Your task to perform on an android device: change keyboard looks Image 0: 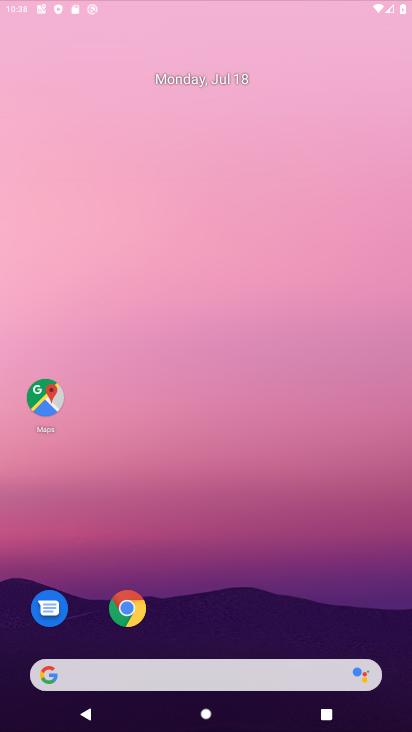
Step 0: click (411, 180)
Your task to perform on an android device: change keyboard looks Image 1: 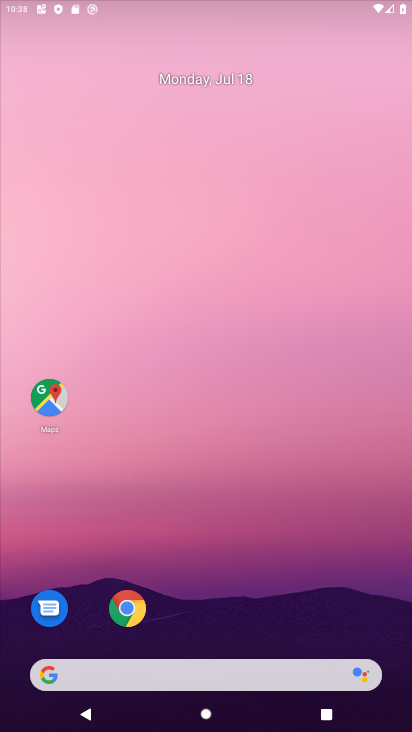
Step 1: drag from (209, 528) to (234, 211)
Your task to perform on an android device: change keyboard looks Image 2: 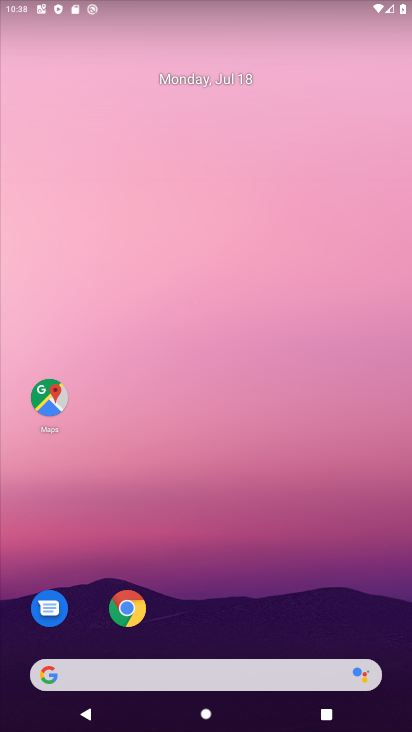
Step 2: drag from (228, 597) to (118, 36)
Your task to perform on an android device: change keyboard looks Image 3: 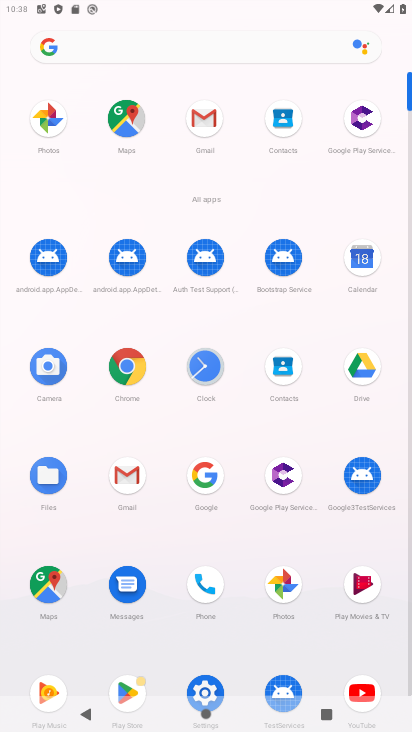
Step 3: drag from (205, 573) to (205, 469)
Your task to perform on an android device: change keyboard looks Image 4: 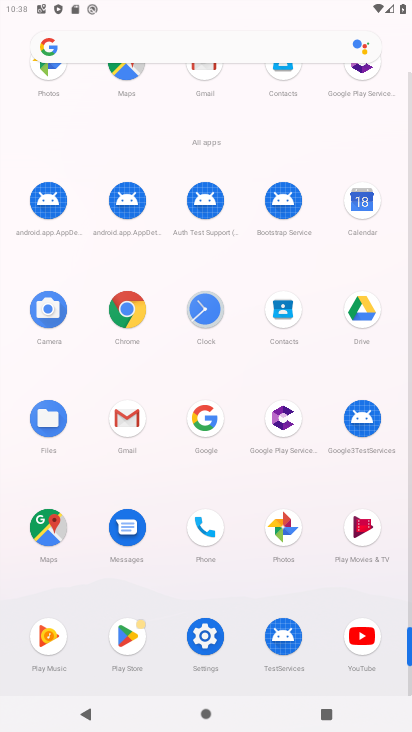
Step 4: click (200, 654)
Your task to perform on an android device: change keyboard looks Image 5: 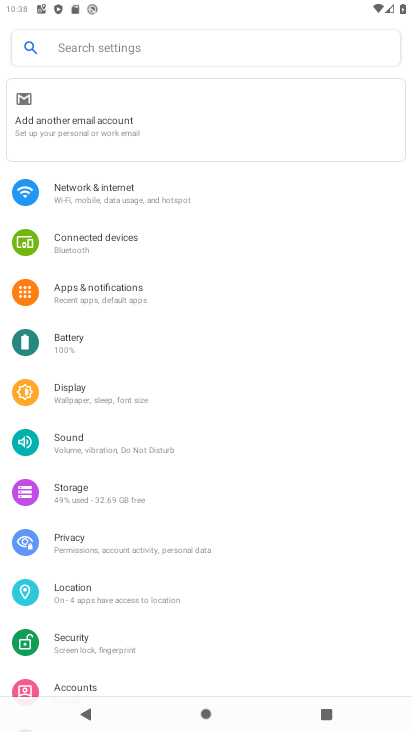
Step 5: drag from (99, 581) to (100, 248)
Your task to perform on an android device: change keyboard looks Image 6: 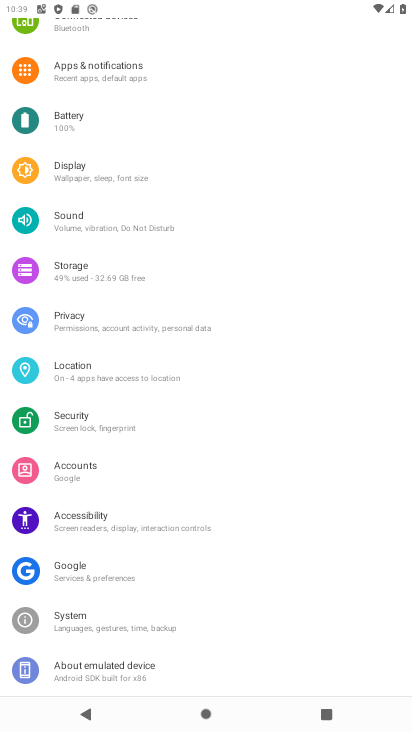
Step 6: click (97, 625)
Your task to perform on an android device: change keyboard looks Image 7: 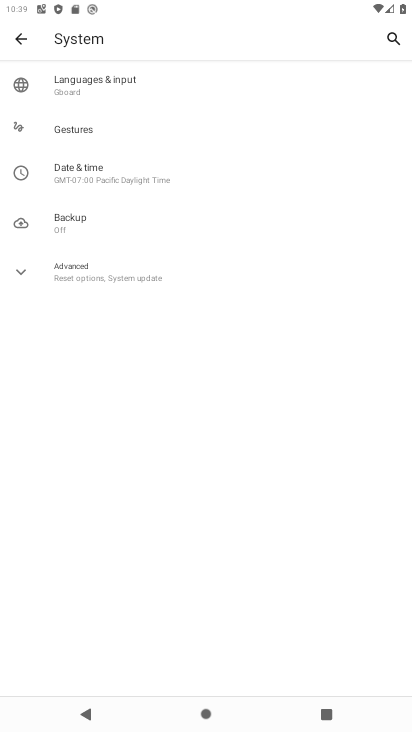
Step 7: click (99, 73)
Your task to perform on an android device: change keyboard looks Image 8: 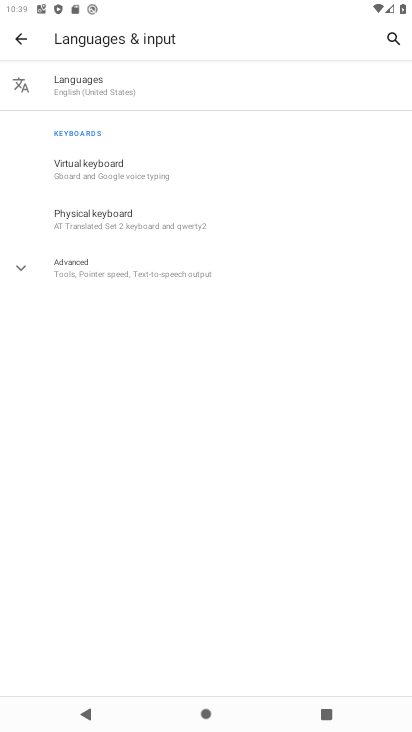
Step 8: click (103, 170)
Your task to perform on an android device: change keyboard looks Image 9: 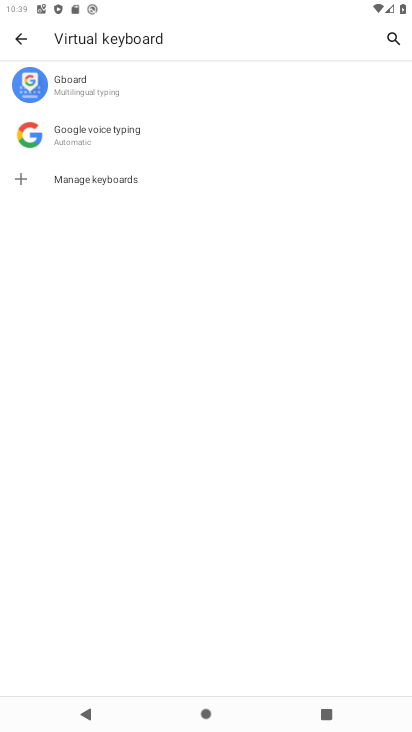
Step 9: click (99, 83)
Your task to perform on an android device: change keyboard looks Image 10: 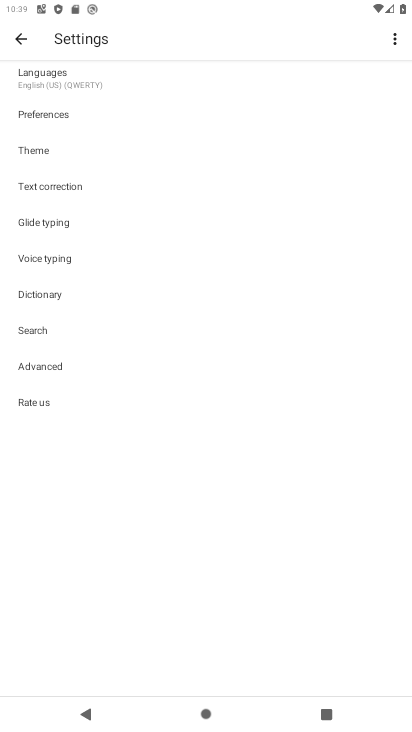
Step 10: click (57, 153)
Your task to perform on an android device: change keyboard looks Image 11: 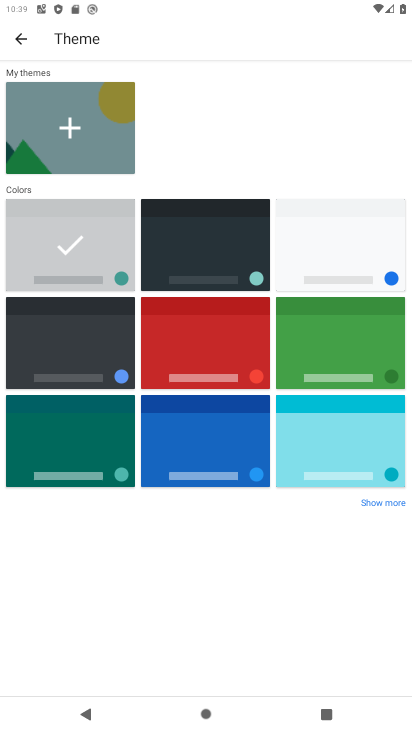
Step 11: click (216, 258)
Your task to perform on an android device: change keyboard looks Image 12: 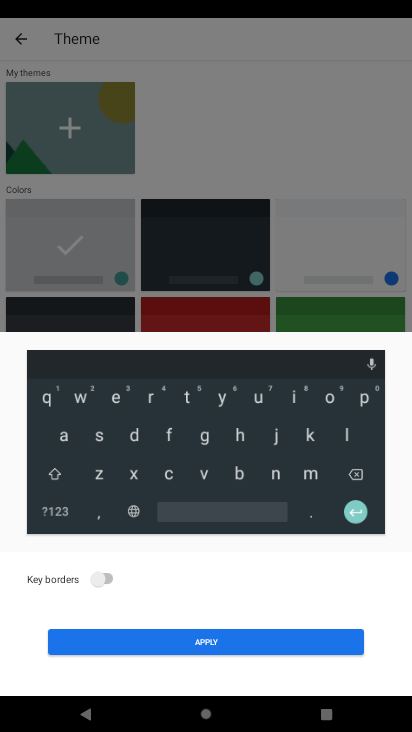
Step 12: click (207, 647)
Your task to perform on an android device: change keyboard looks Image 13: 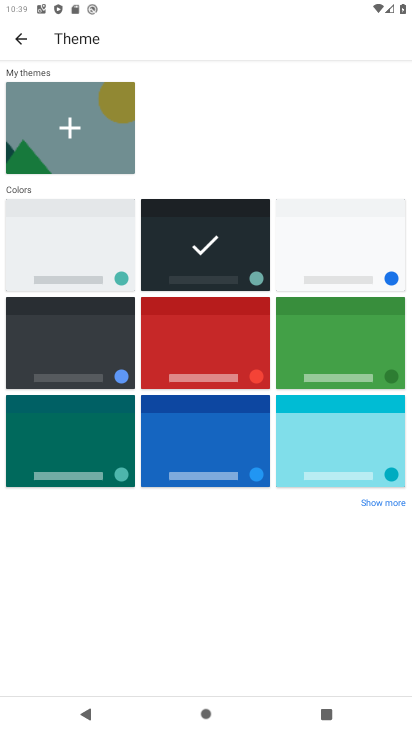
Step 13: task complete